Your task to perform on an android device: install app "Adobe Acrobat Reader" Image 0: 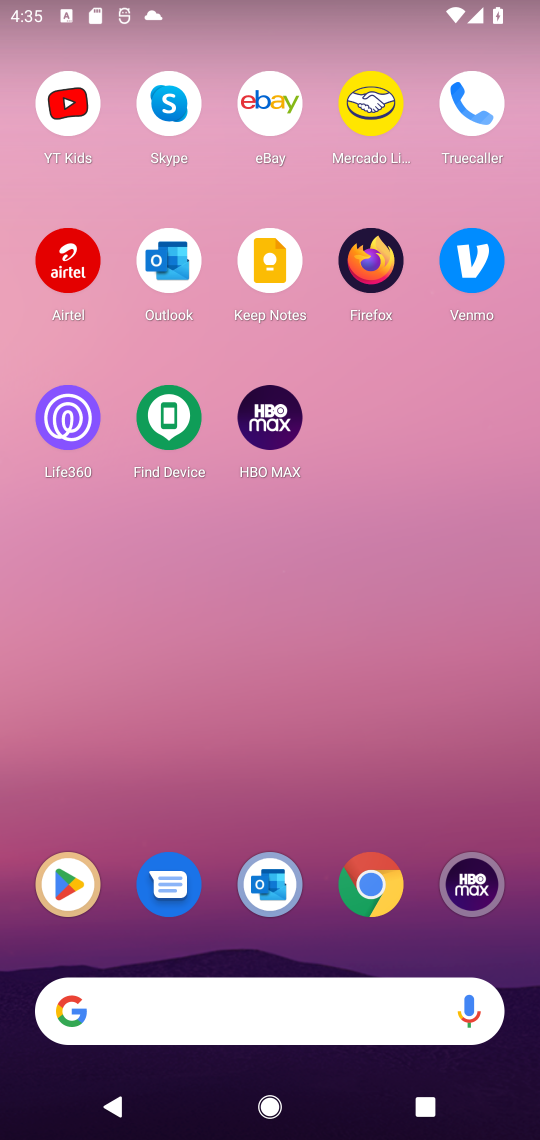
Step 0: drag from (232, 948) to (344, 57)
Your task to perform on an android device: install app "Adobe Acrobat Reader" Image 1: 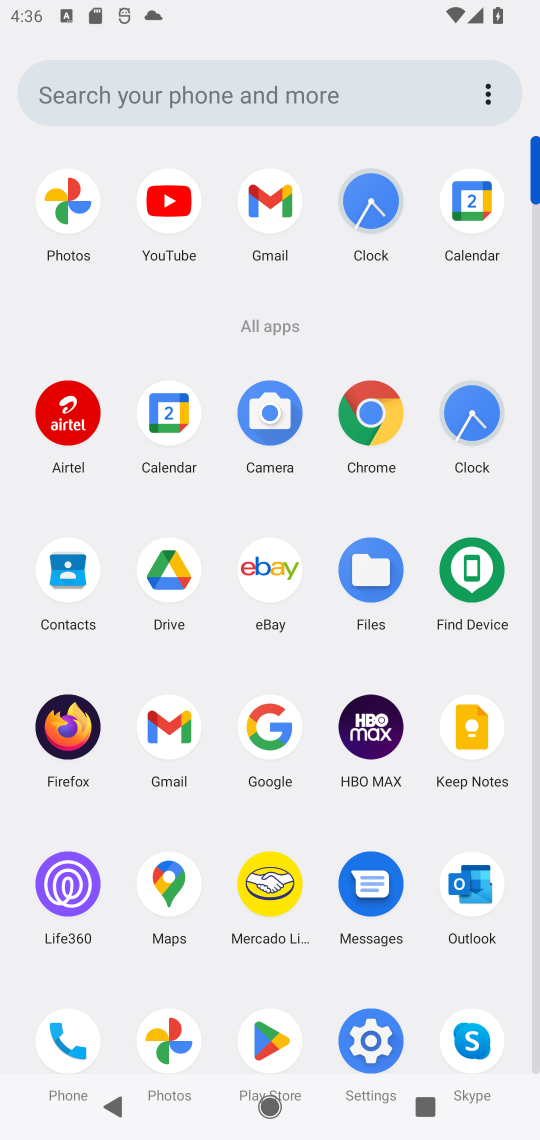
Step 1: click (271, 1049)
Your task to perform on an android device: install app "Adobe Acrobat Reader" Image 2: 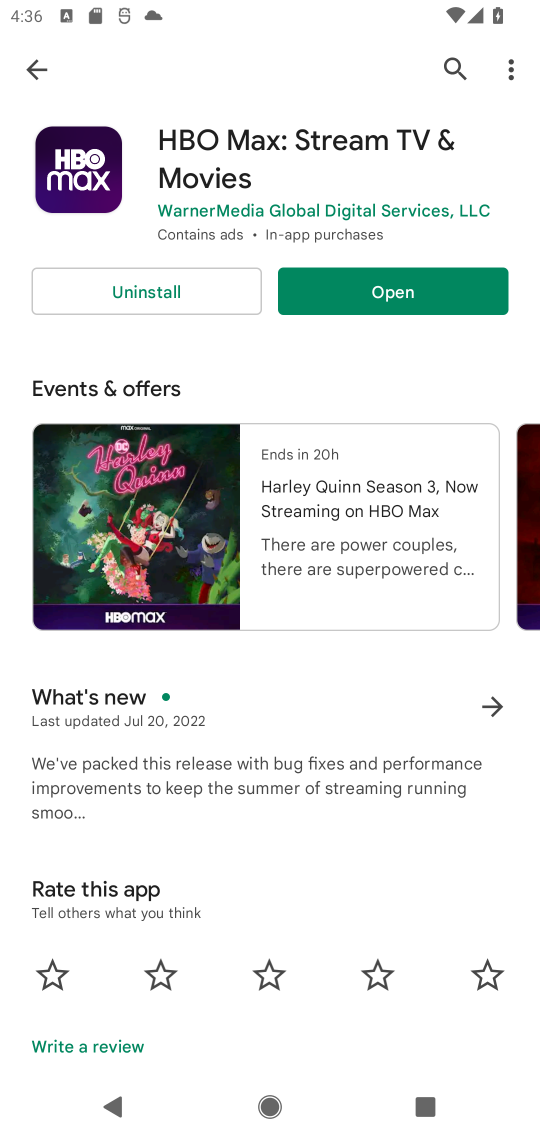
Step 2: click (34, 68)
Your task to perform on an android device: install app "Adobe Acrobat Reader" Image 3: 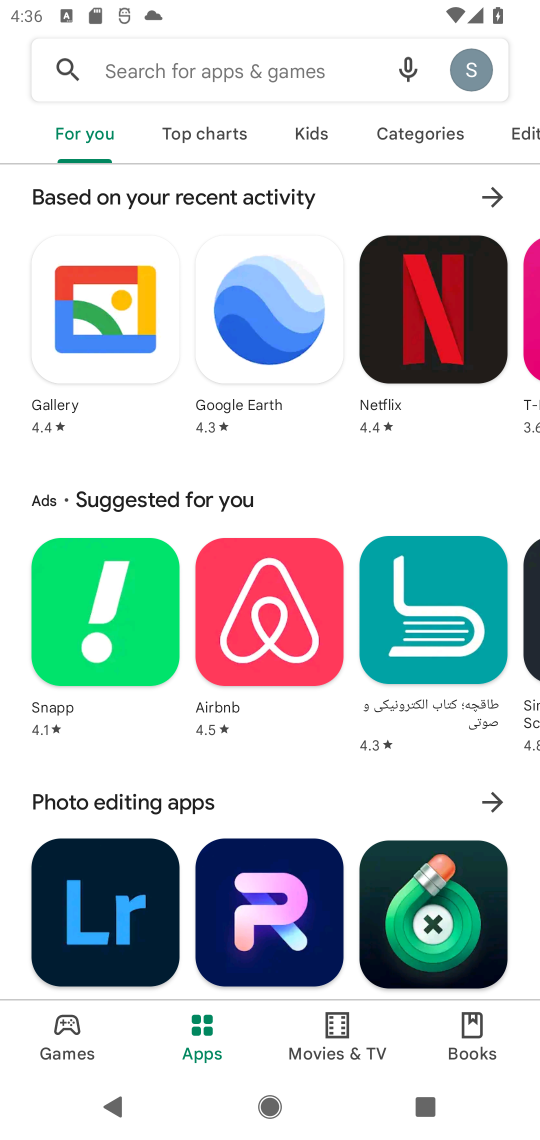
Step 3: click (196, 69)
Your task to perform on an android device: install app "Adobe Acrobat Reader" Image 4: 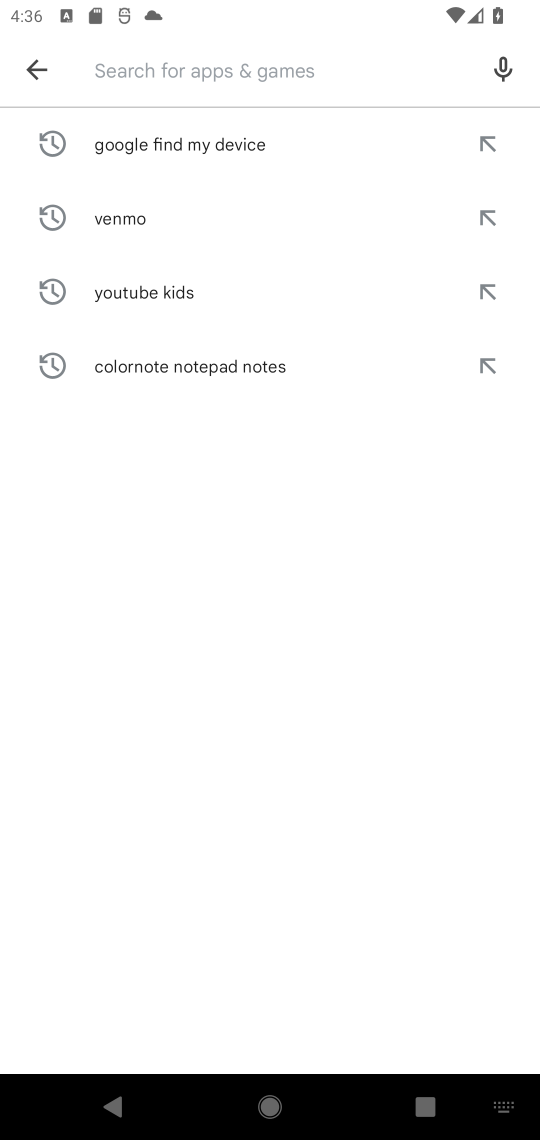
Step 4: type "Adobe Acrobat Reader"
Your task to perform on an android device: install app "Adobe Acrobat Reader" Image 5: 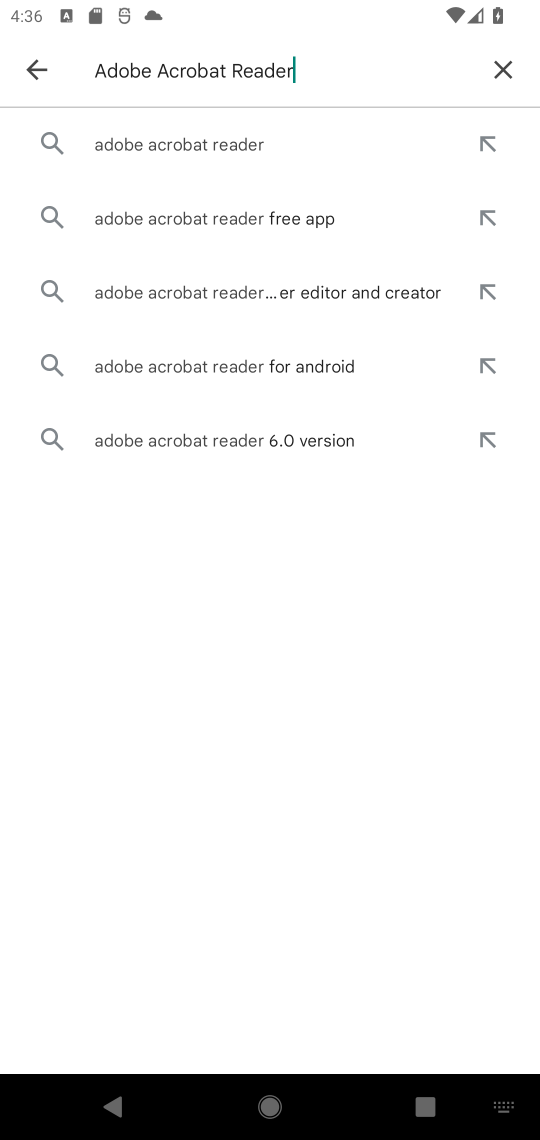
Step 5: click (187, 154)
Your task to perform on an android device: install app "Adobe Acrobat Reader" Image 6: 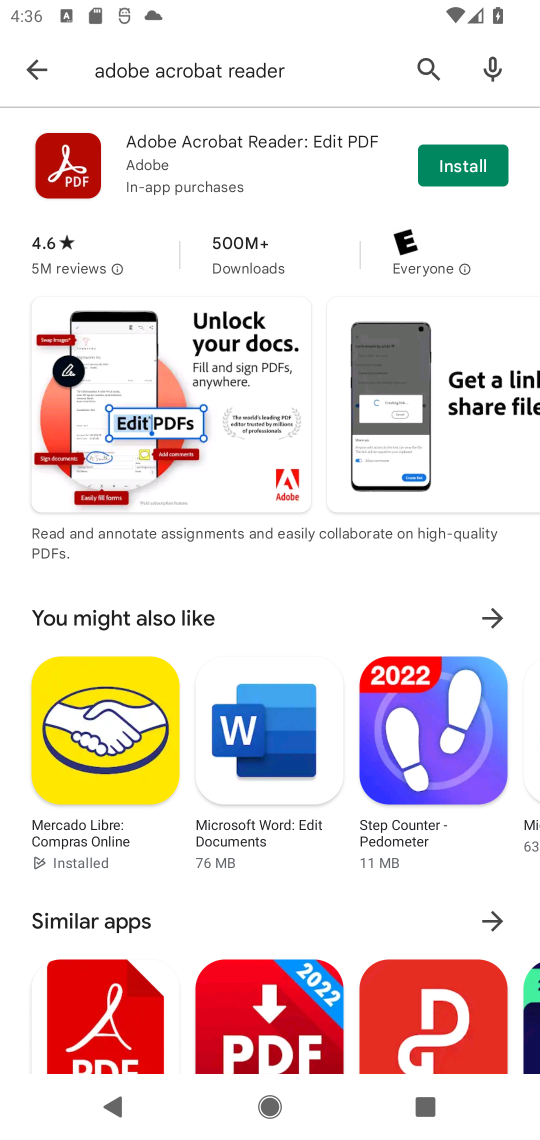
Step 6: click (459, 162)
Your task to perform on an android device: install app "Adobe Acrobat Reader" Image 7: 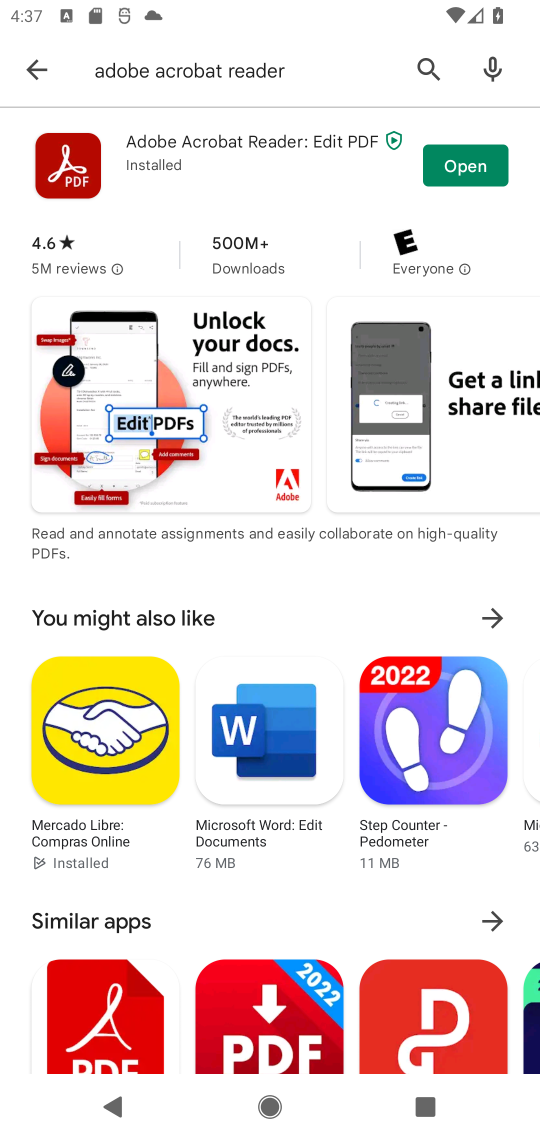
Step 7: click (455, 162)
Your task to perform on an android device: install app "Adobe Acrobat Reader" Image 8: 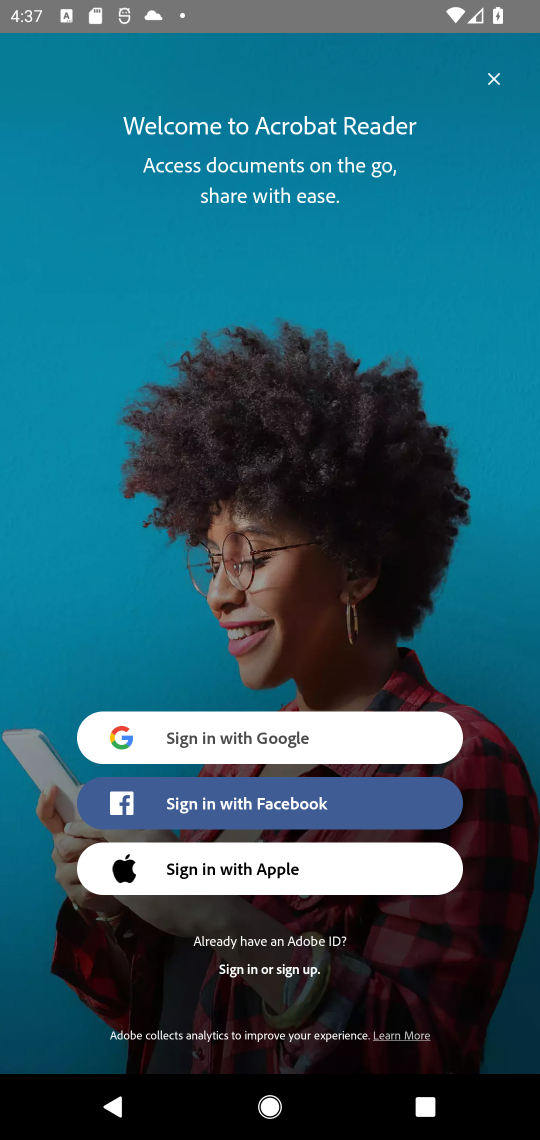
Step 8: task complete